Your task to perform on an android device: manage bookmarks in the chrome app Image 0: 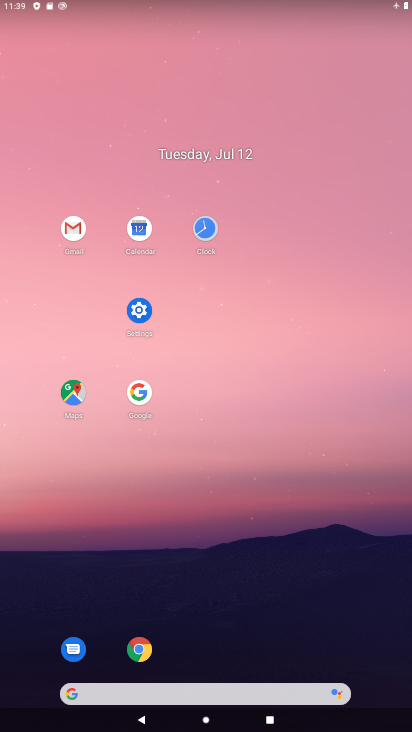
Step 0: click (134, 649)
Your task to perform on an android device: manage bookmarks in the chrome app Image 1: 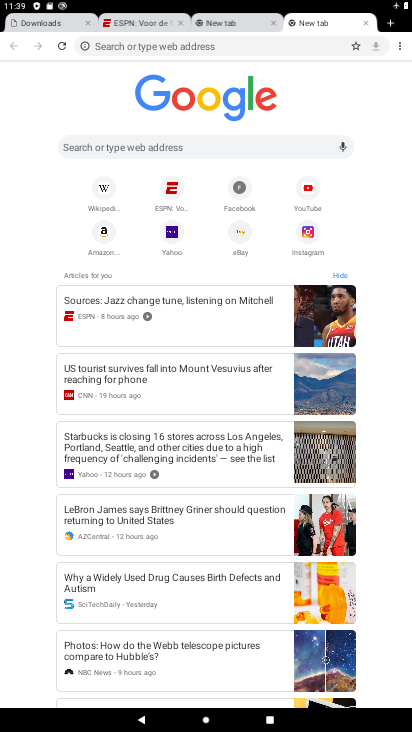
Step 1: click (398, 39)
Your task to perform on an android device: manage bookmarks in the chrome app Image 2: 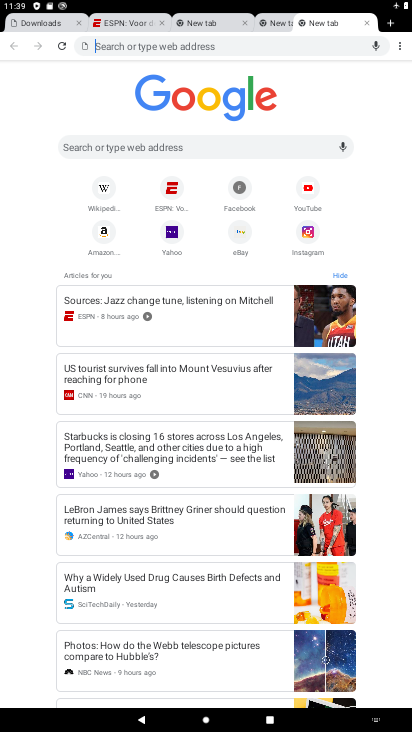
Step 2: click (397, 50)
Your task to perform on an android device: manage bookmarks in the chrome app Image 3: 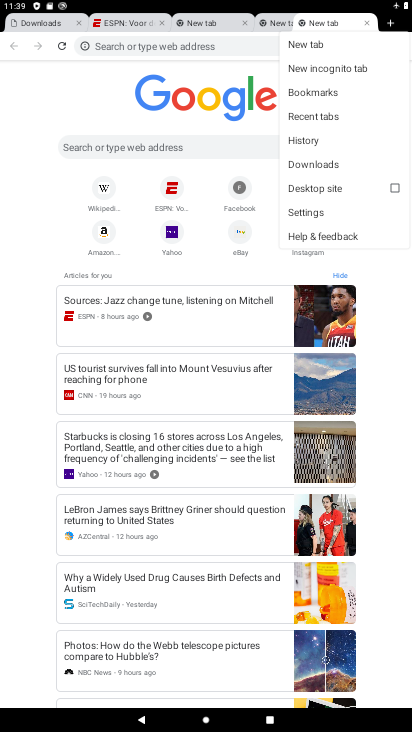
Step 3: click (325, 94)
Your task to perform on an android device: manage bookmarks in the chrome app Image 4: 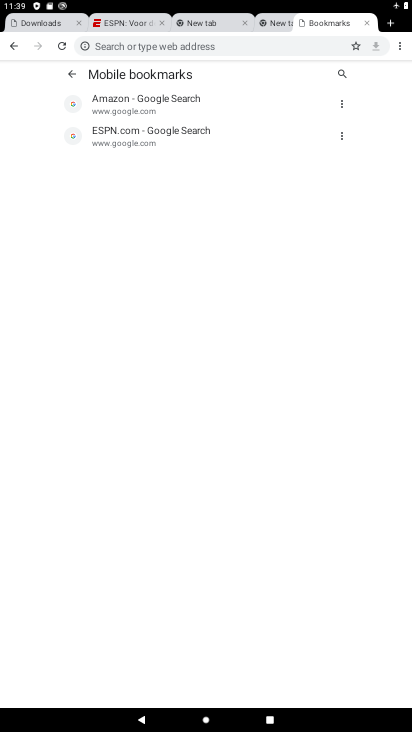
Step 4: click (342, 99)
Your task to perform on an android device: manage bookmarks in the chrome app Image 5: 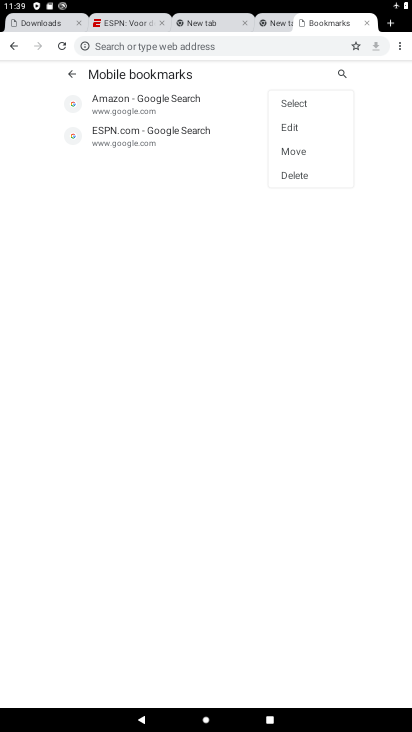
Step 5: click (335, 166)
Your task to perform on an android device: manage bookmarks in the chrome app Image 6: 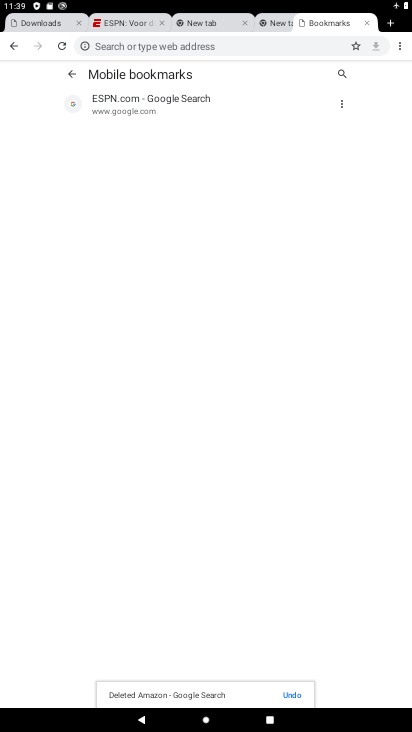
Step 6: task complete